Your task to perform on an android device: set the timer Image 0: 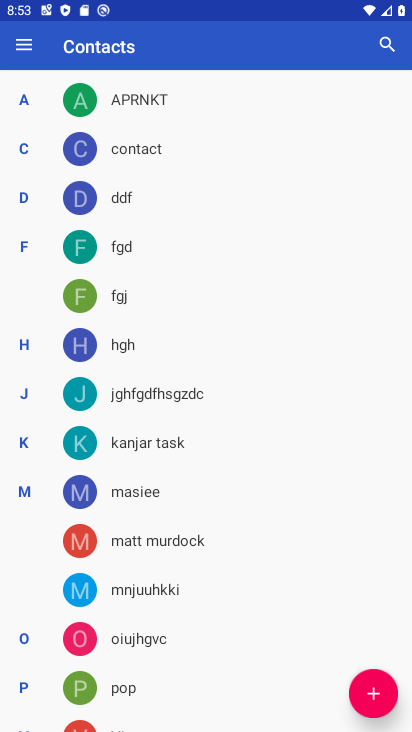
Step 0: press home button
Your task to perform on an android device: set the timer Image 1: 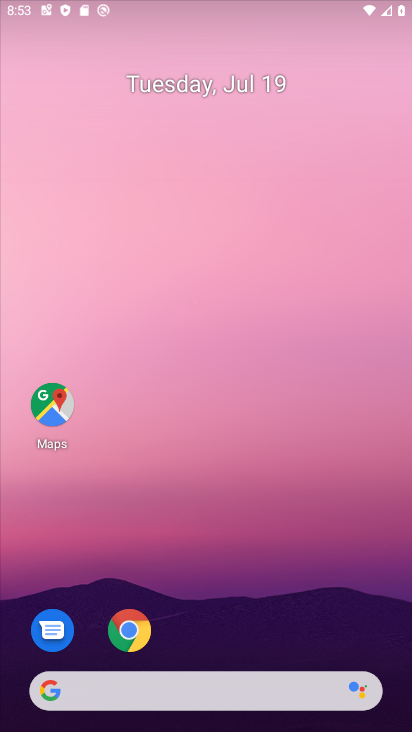
Step 1: drag from (225, 636) to (234, 114)
Your task to perform on an android device: set the timer Image 2: 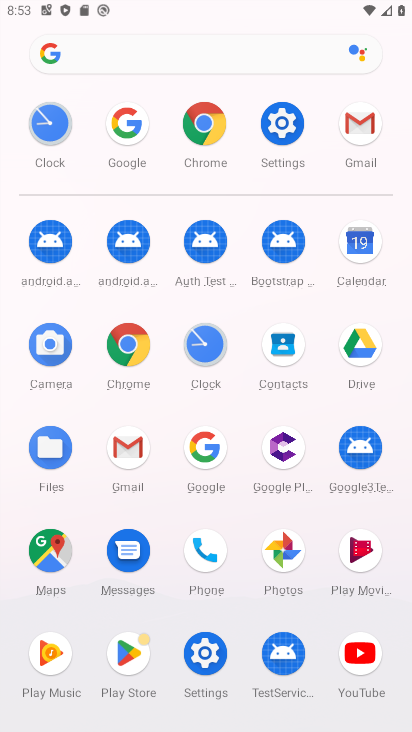
Step 2: click (203, 349)
Your task to perform on an android device: set the timer Image 3: 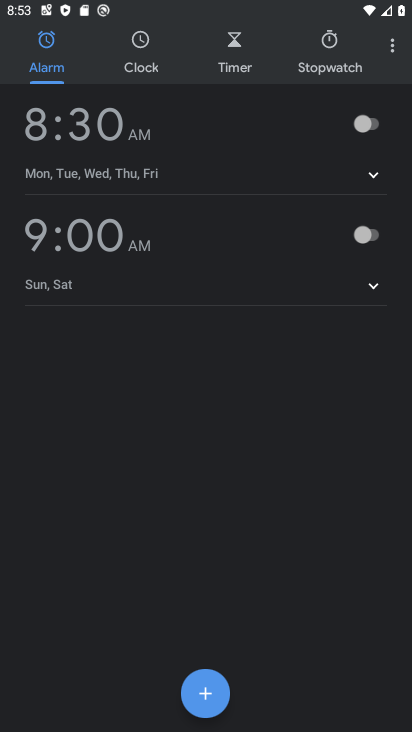
Step 3: click (250, 49)
Your task to perform on an android device: set the timer Image 4: 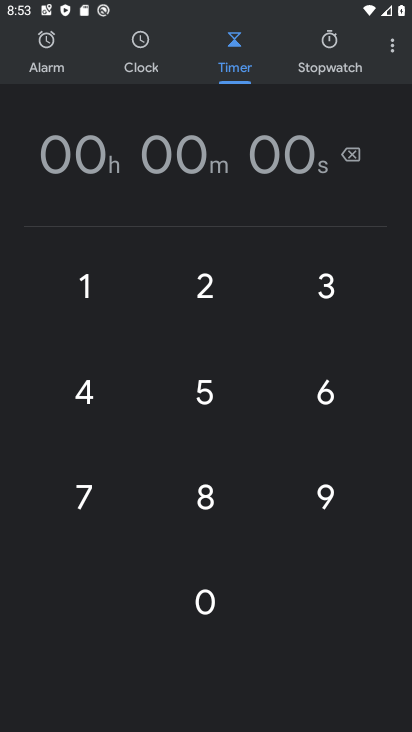
Step 4: click (222, 300)
Your task to perform on an android device: set the timer Image 5: 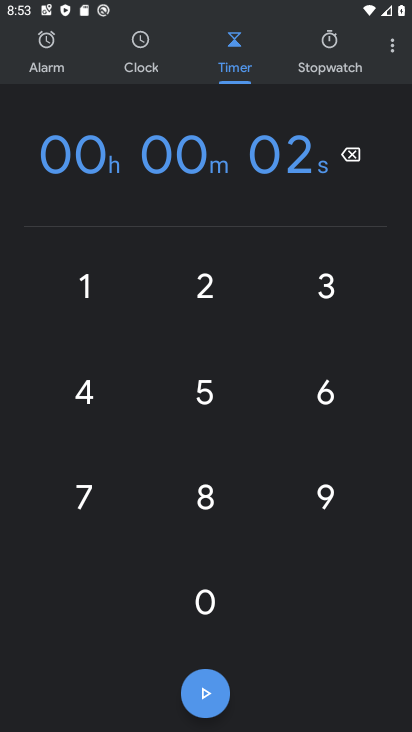
Step 5: click (222, 300)
Your task to perform on an android device: set the timer Image 6: 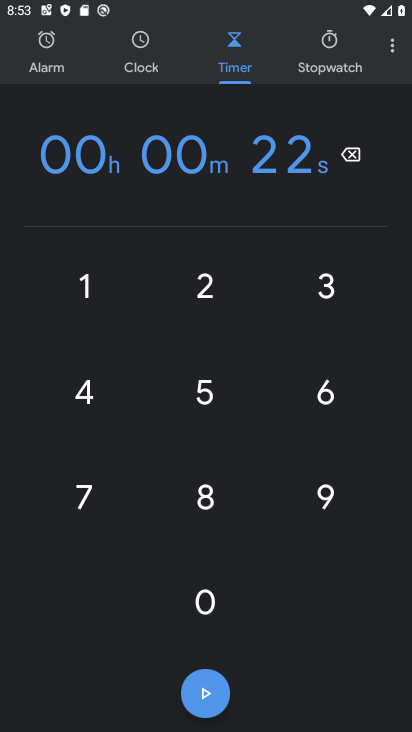
Step 6: task complete